Your task to perform on an android device: turn on location history Image 0: 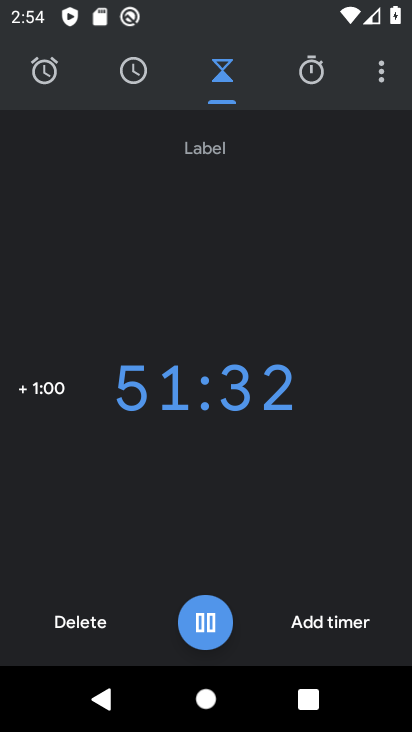
Step 0: press home button
Your task to perform on an android device: turn on location history Image 1: 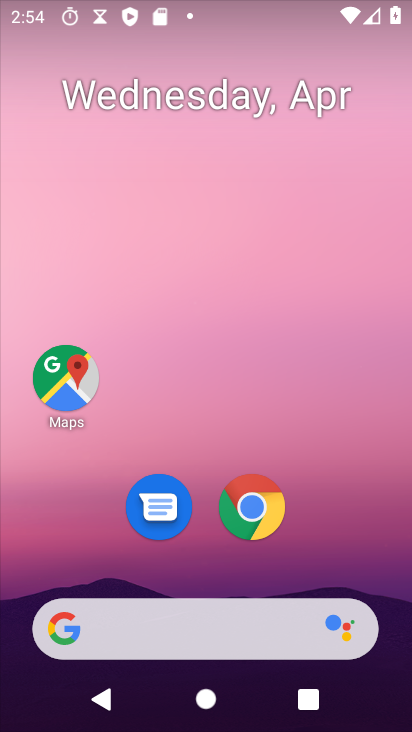
Step 1: drag from (318, 403) to (212, 62)
Your task to perform on an android device: turn on location history Image 2: 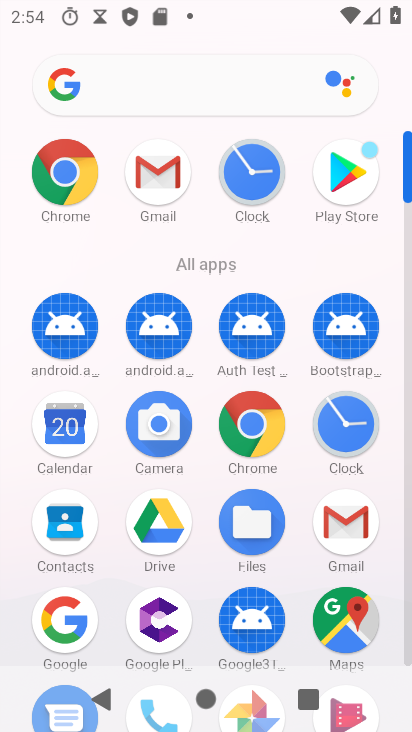
Step 2: drag from (200, 670) to (214, 264)
Your task to perform on an android device: turn on location history Image 3: 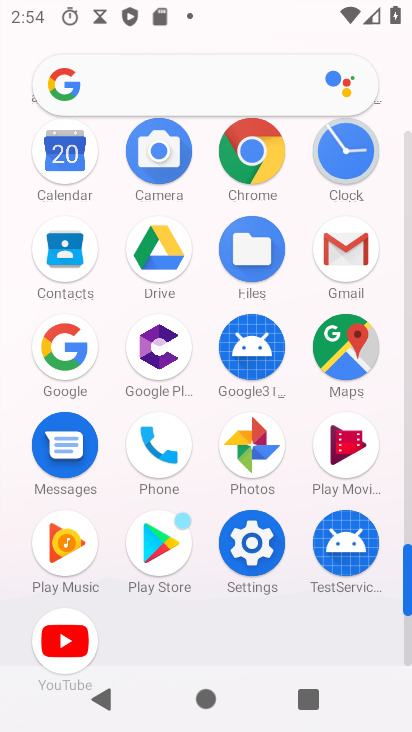
Step 3: click (241, 541)
Your task to perform on an android device: turn on location history Image 4: 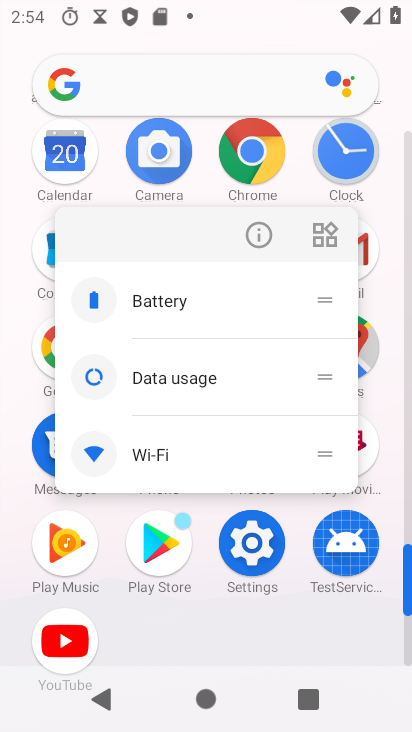
Step 4: click (241, 541)
Your task to perform on an android device: turn on location history Image 5: 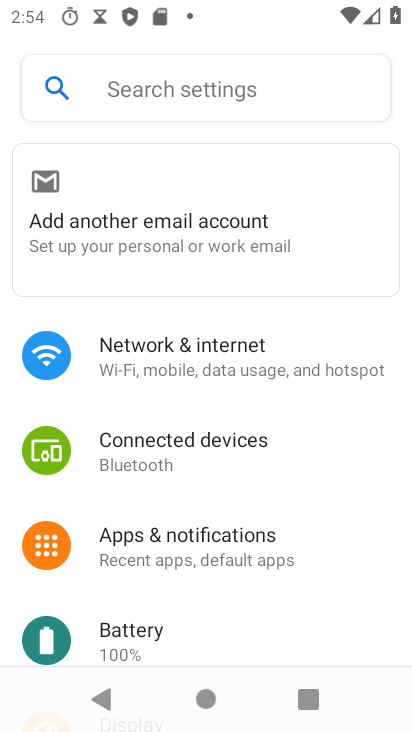
Step 5: drag from (196, 628) to (146, 181)
Your task to perform on an android device: turn on location history Image 6: 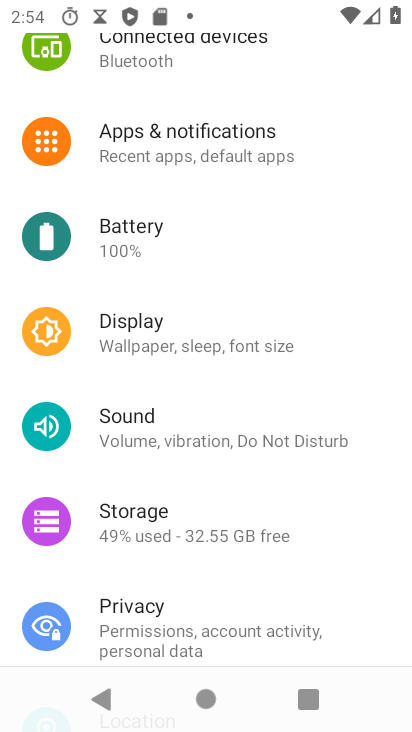
Step 6: drag from (297, 293) to (256, 182)
Your task to perform on an android device: turn on location history Image 7: 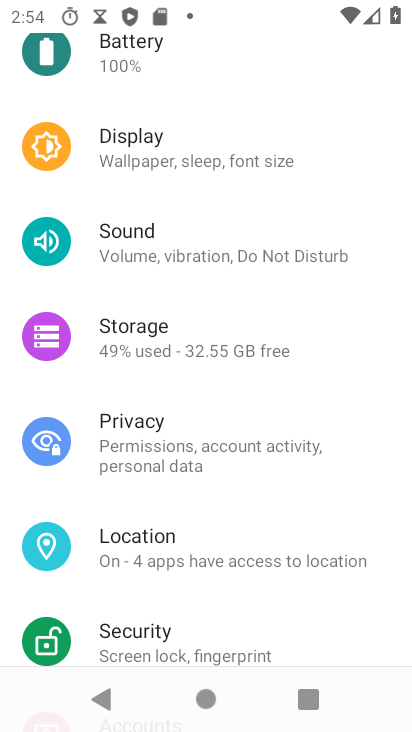
Step 7: click (161, 543)
Your task to perform on an android device: turn on location history Image 8: 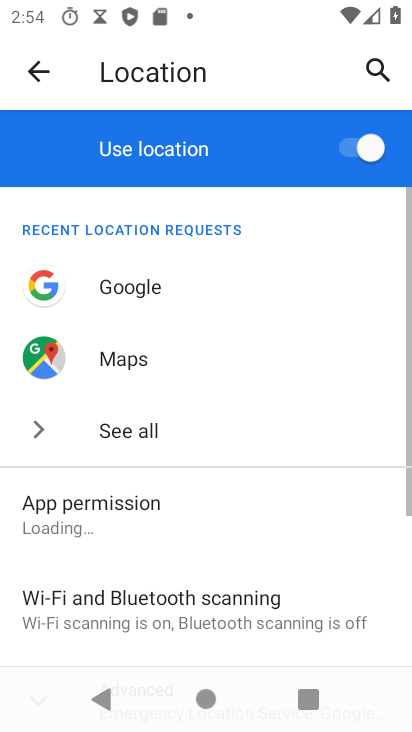
Step 8: drag from (188, 604) to (168, 305)
Your task to perform on an android device: turn on location history Image 9: 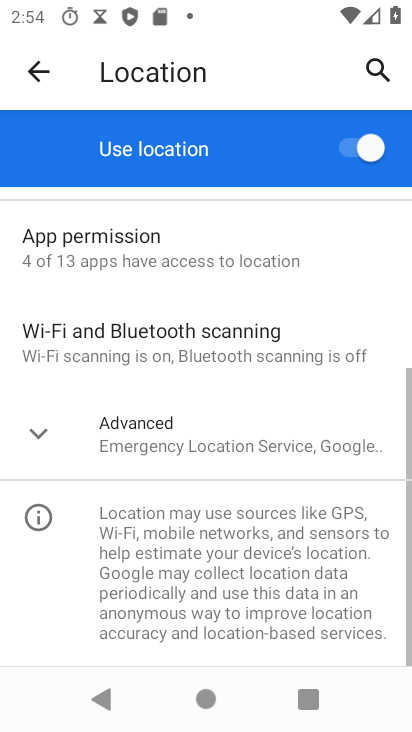
Step 9: click (124, 450)
Your task to perform on an android device: turn on location history Image 10: 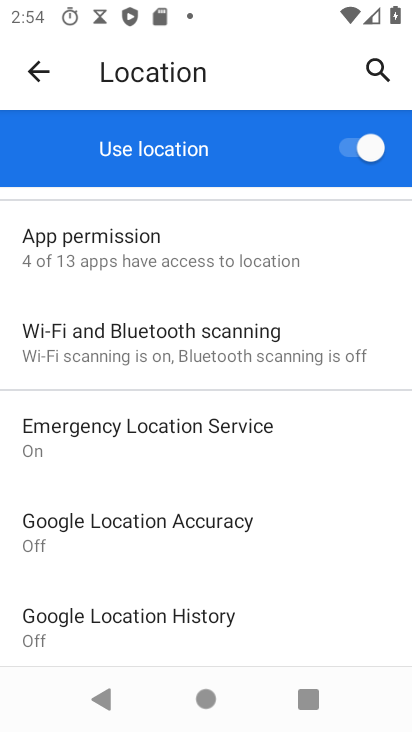
Step 10: click (125, 633)
Your task to perform on an android device: turn on location history Image 11: 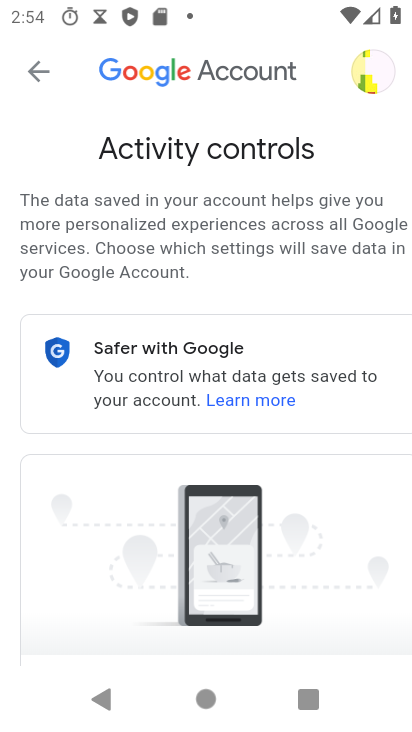
Step 11: drag from (136, 617) to (73, 200)
Your task to perform on an android device: turn on location history Image 12: 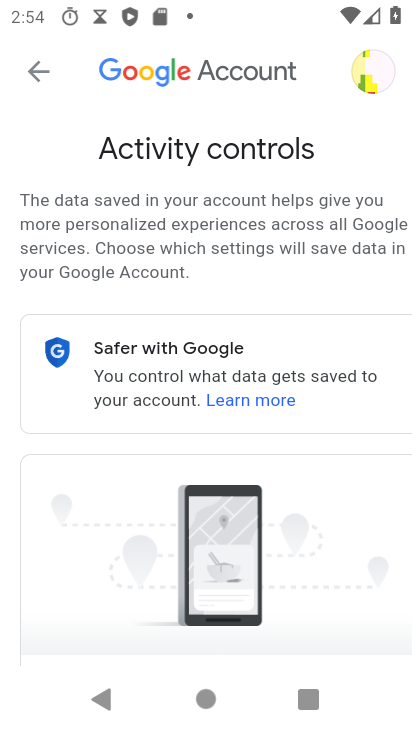
Step 12: drag from (108, 570) to (62, 187)
Your task to perform on an android device: turn on location history Image 13: 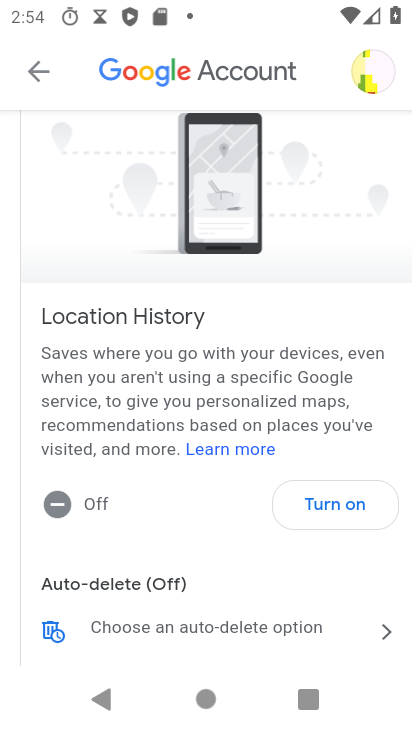
Step 13: click (319, 502)
Your task to perform on an android device: turn on location history Image 14: 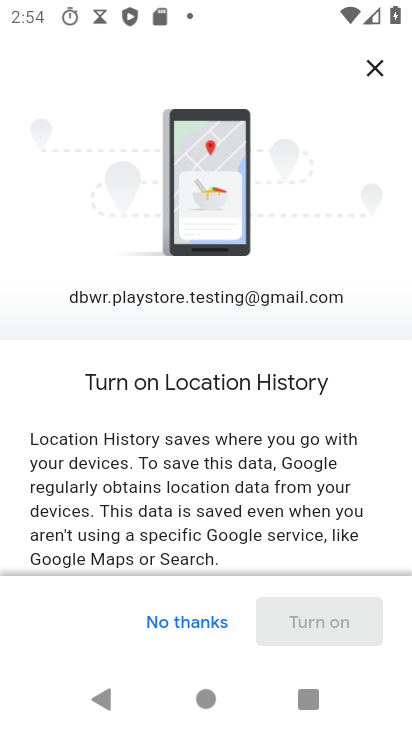
Step 14: drag from (225, 563) to (207, 235)
Your task to perform on an android device: turn on location history Image 15: 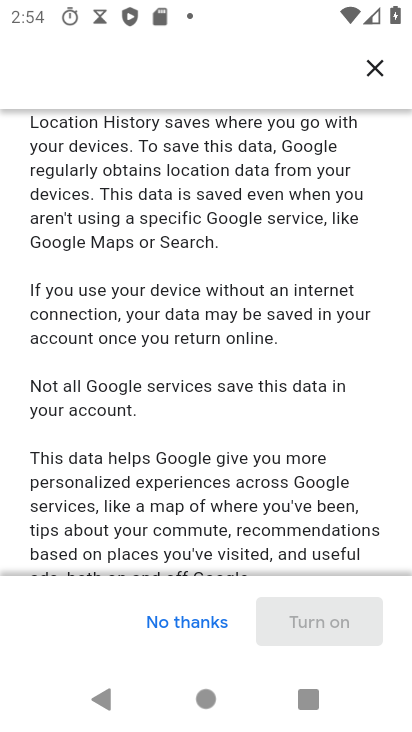
Step 15: drag from (237, 536) to (234, 235)
Your task to perform on an android device: turn on location history Image 16: 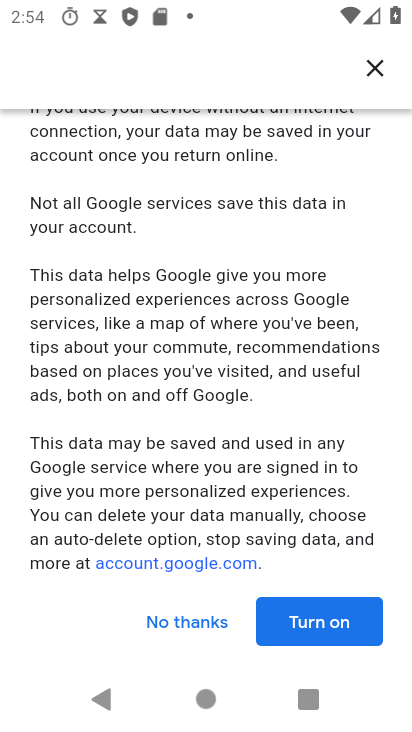
Step 16: click (292, 608)
Your task to perform on an android device: turn on location history Image 17: 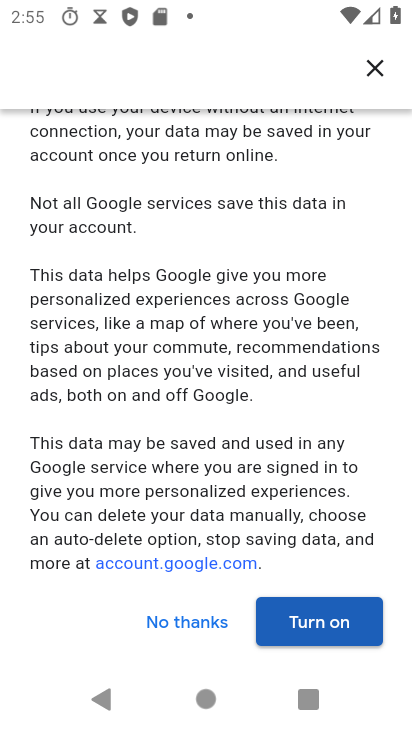
Step 17: click (289, 620)
Your task to perform on an android device: turn on location history Image 18: 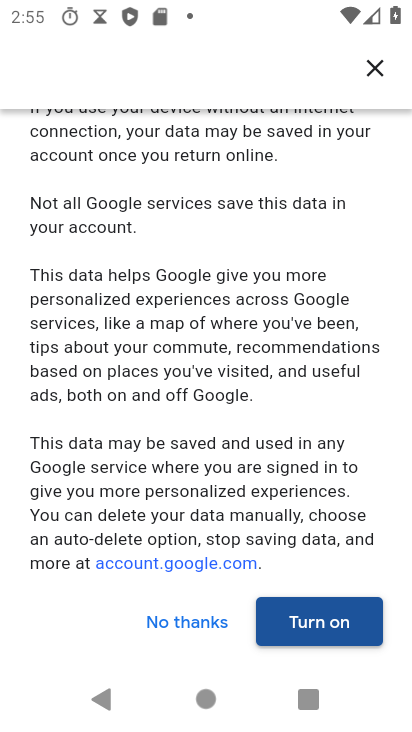
Step 18: click (289, 620)
Your task to perform on an android device: turn on location history Image 19: 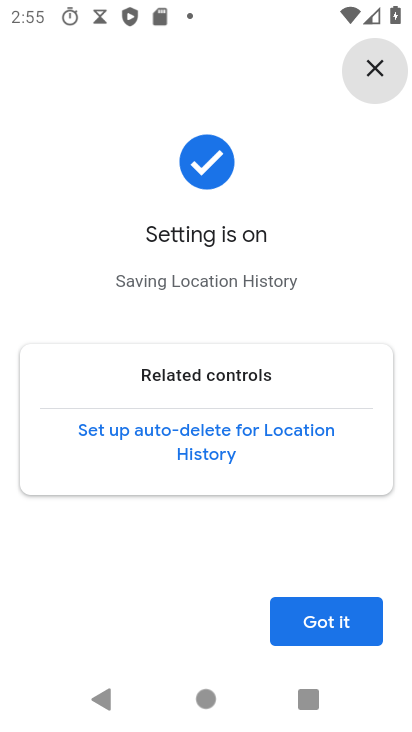
Step 19: click (323, 635)
Your task to perform on an android device: turn on location history Image 20: 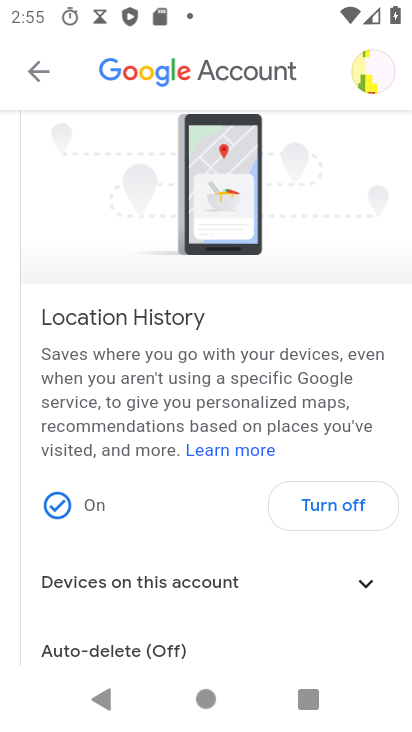
Step 20: task complete